Your task to perform on an android device: open a new tab in the chrome app Image 0: 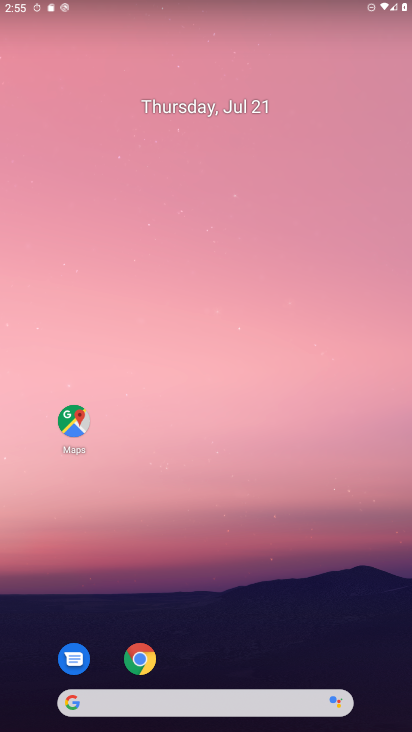
Step 0: click (139, 652)
Your task to perform on an android device: open a new tab in the chrome app Image 1: 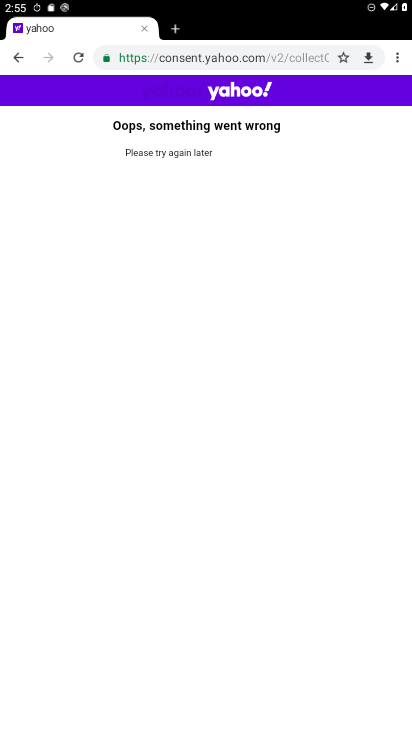
Step 1: click (176, 28)
Your task to perform on an android device: open a new tab in the chrome app Image 2: 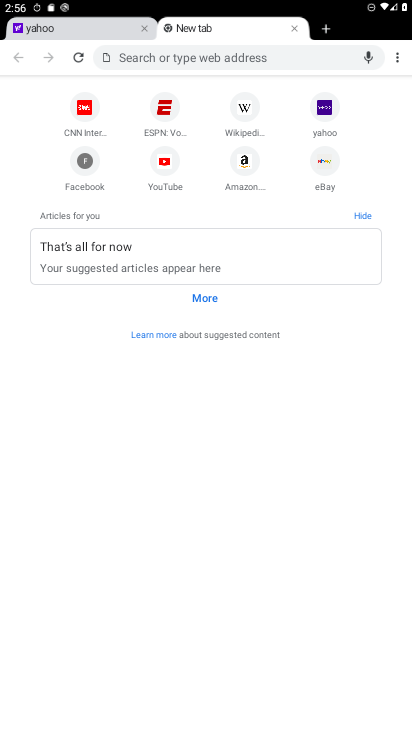
Step 2: click (228, 29)
Your task to perform on an android device: open a new tab in the chrome app Image 3: 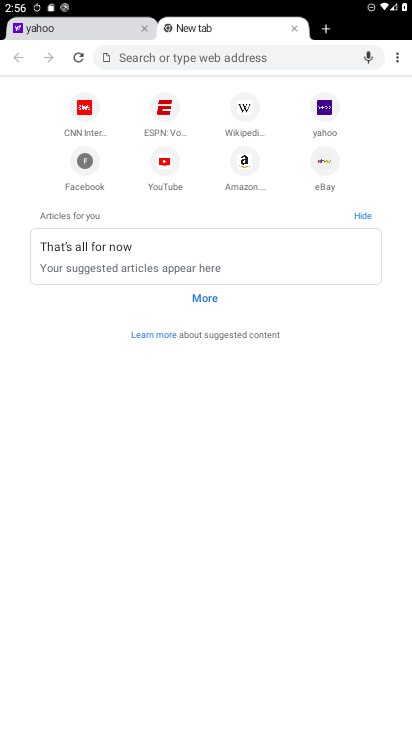
Step 3: task complete